Your task to perform on an android device: turn on airplane mode Image 0: 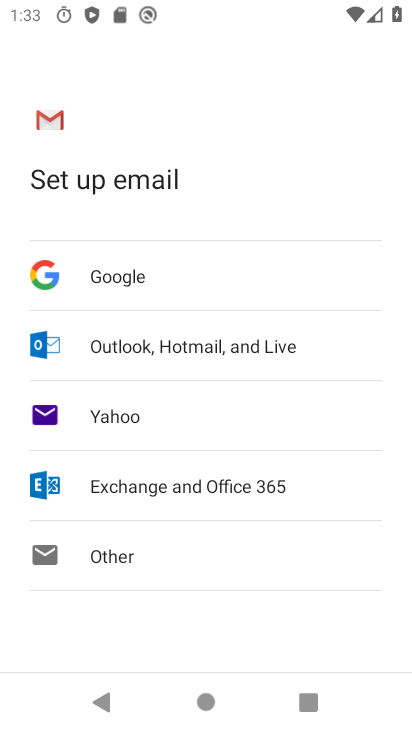
Step 0: press home button
Your task to perform on an android device: turn on airplane mode Image 1: 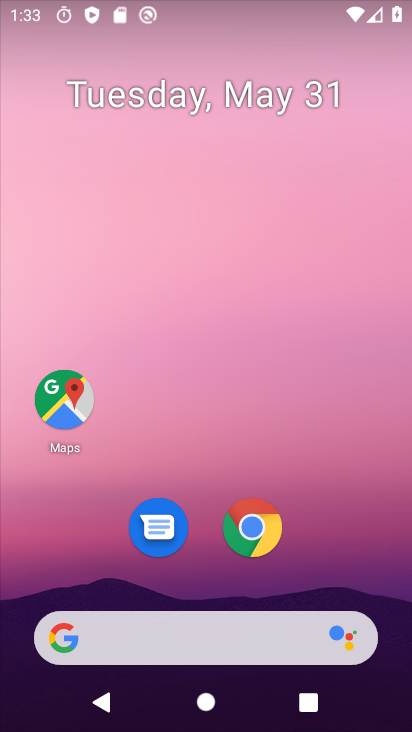
Step 1: drag from (241, 11) to (174, 688)
Your task to perform on an android device: turn on airplane mode Image 2: 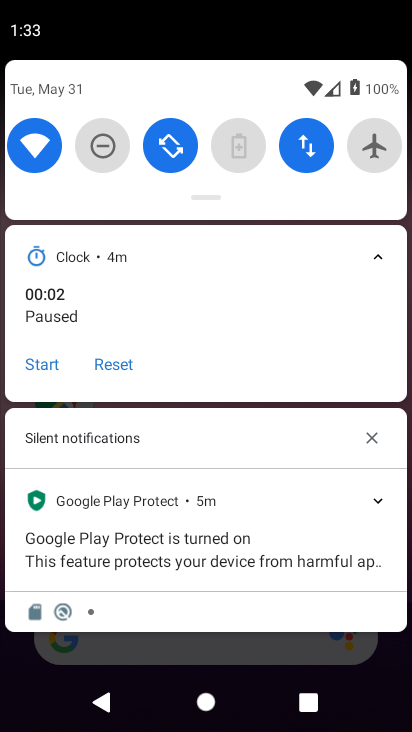
Step 2: click (381, 143)
Your task to perform on an android device: turn on airplane mode Image 3: 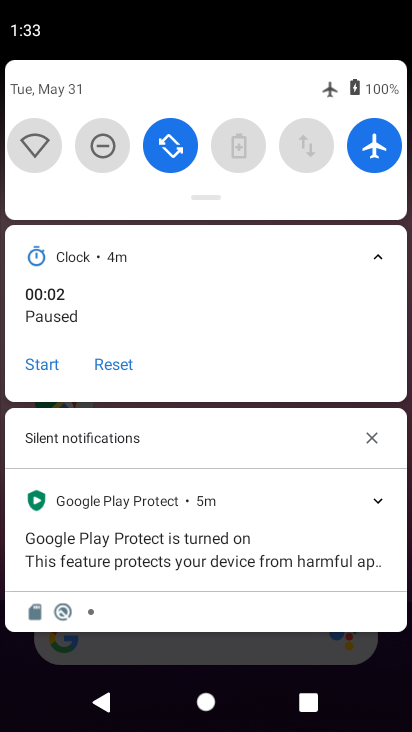
Step 3: task complete